Your task to perform on an android device: change alarm snooze length Image 0: 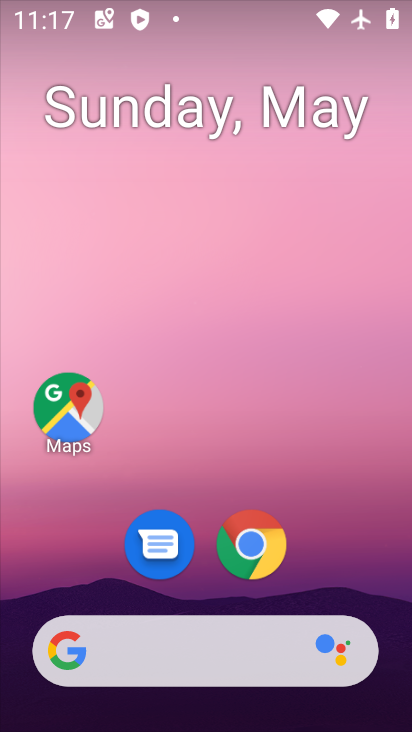
Step 0: drag from (347, 541) to (322, 236)
Your task to perform on an android device: change alarm snooze length Image 1: 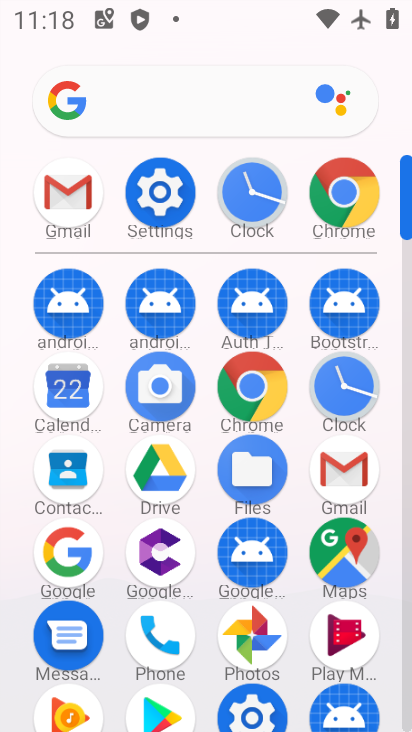
Step 1: click (340, 400)
Your task to perform on an android device: change alarm snooze length Image 2: 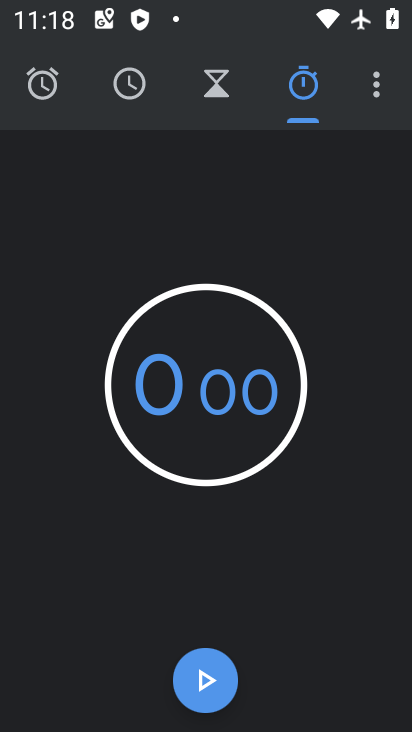
Step 2: click (368, 83)
Your task to perform on an android device: change alarm snooze length Image 3: 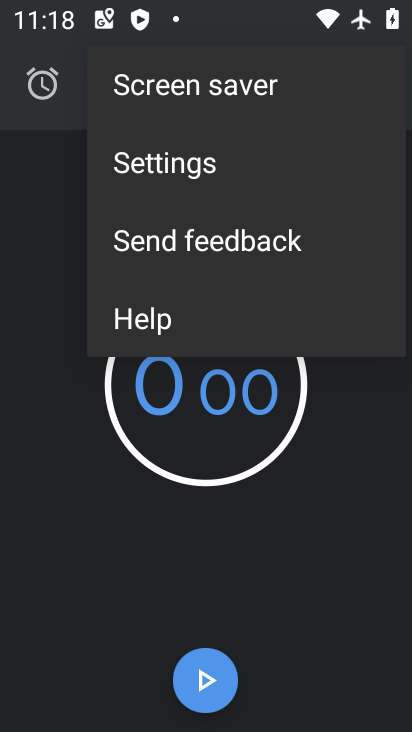
Step 3: click (232, 169)
Your task to perform on an android device: change alarm snooze length Image 4: 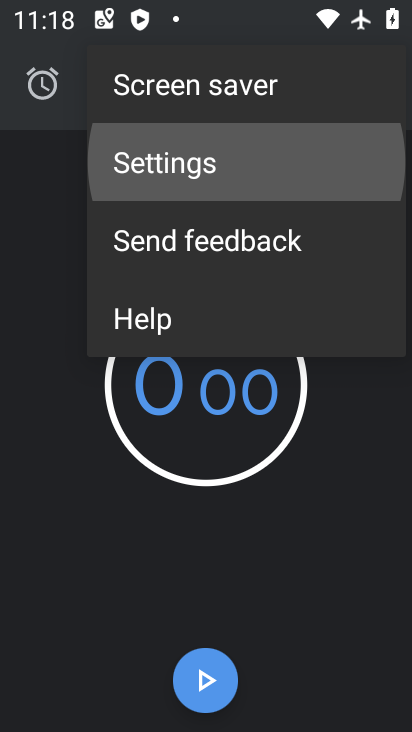
Step 4: click (189, 165)
Your task to perform on an android device: change alarm snooze length Image 5: 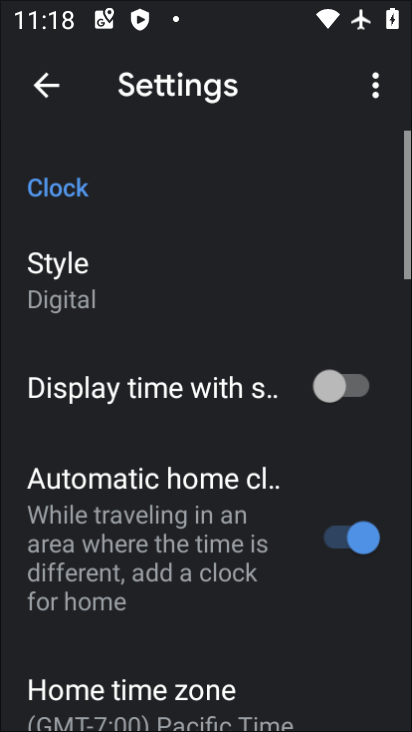
Step 5: click (189, 164)
Your task to perform on an android device: change alarm snooze length Image 6: 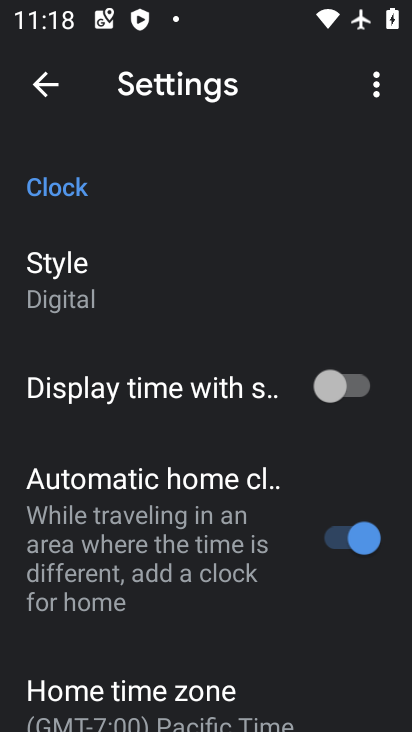
Step 6: drag from (136, 574) to (191, 259)
Your task to perform on an android device: change alarm snooze length Image 7: 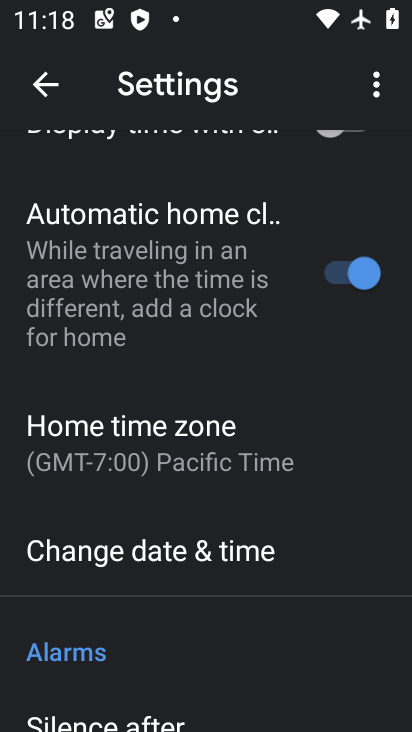
Step 7: drag from (204, 530) to (234, 313)
Your task to perform on an android device: change alarm snooze length Image 8: 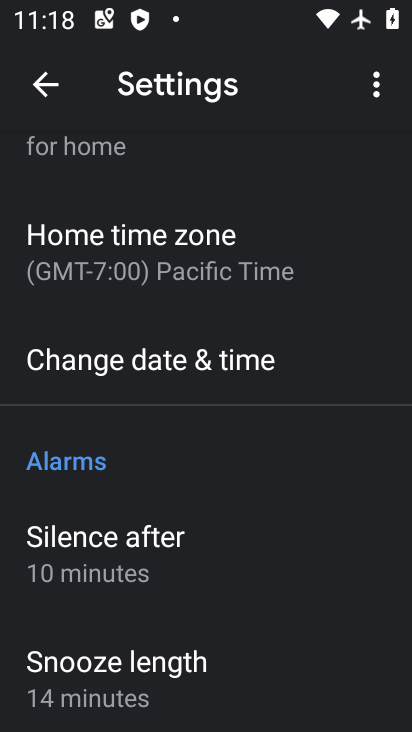
Step 8: click (150, 660)
Your task to perform on an android device: change alarm snooze length Image 9: 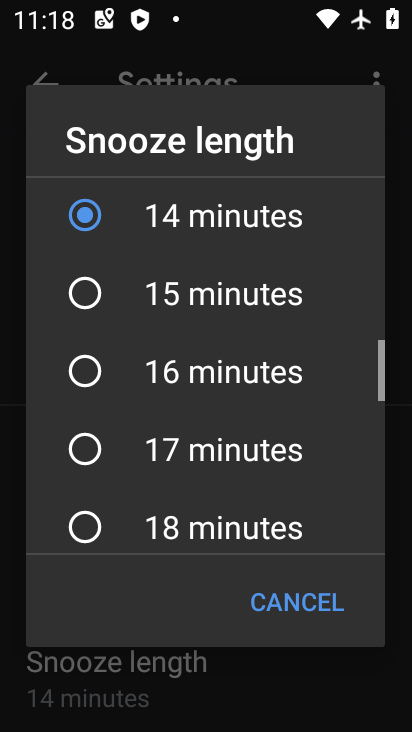
Step 9: click (158, 522)
Your task to perform on an android device: change alarm snooze length Image 10: 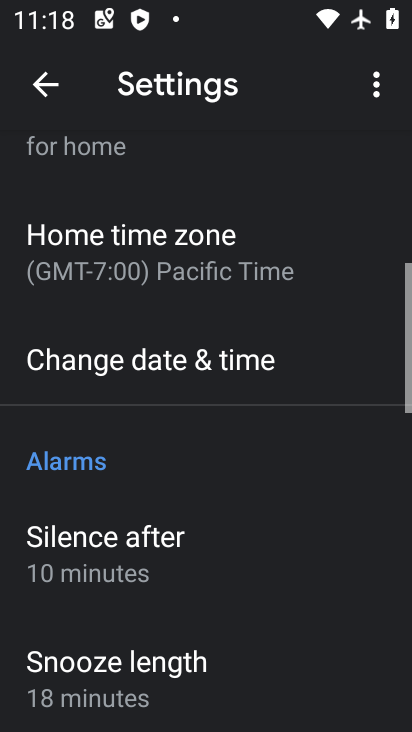
Step 10: task complete